Your task to perform on an android device: search for accent chairs on article.com Image 0: 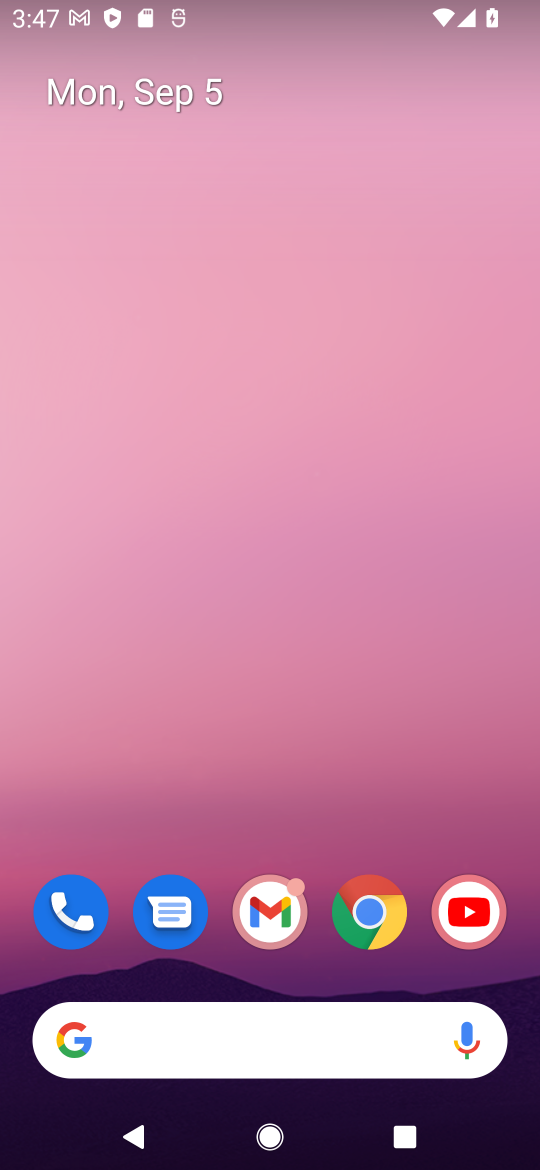
Step 0: click (369, 908)
Your task to perform on an android device: search for accent chairs on article.com Image 1: 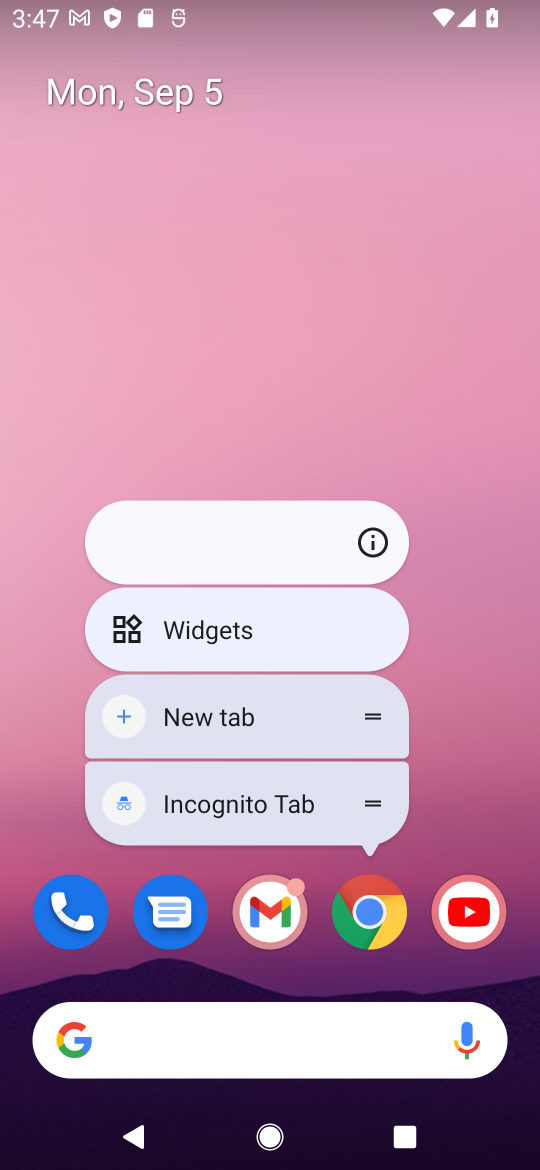
Step 1: click (383, 930)
Your task to perform on an android device: search for accent chairs on article.com Image 2: 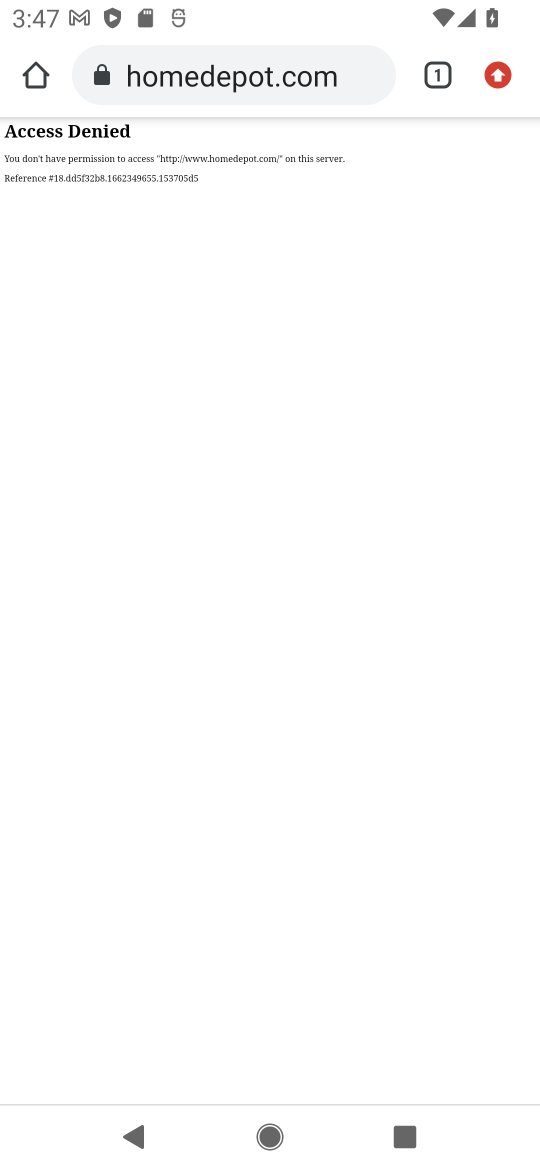
Step 2: click (300, 70)
Your task to perform on an android device: search for accent chairs on article.com Image 3: 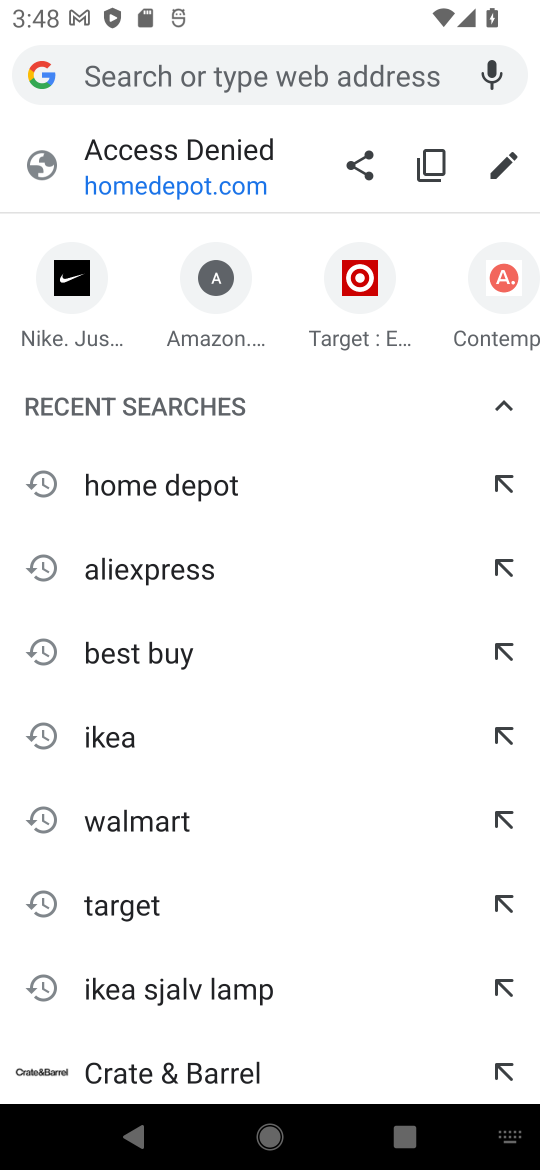
Step 3: type "article.com"
Your task to perform on an android device: search for accent chairs on article.com Image 4: 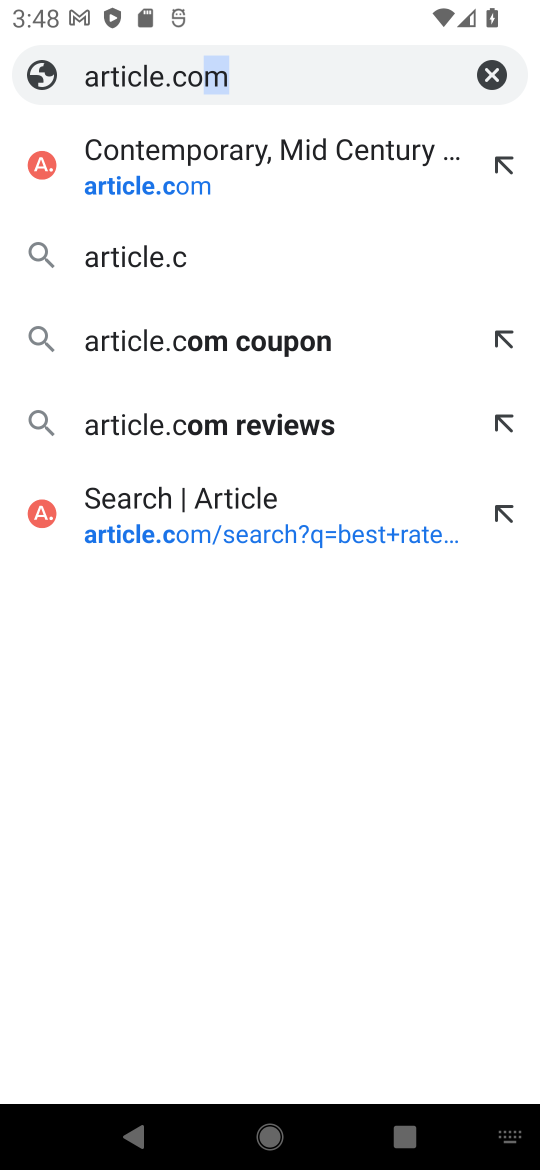
Step 4: type ""
Your task to perform on an android device: search for accent chairs on article.com Image 5: 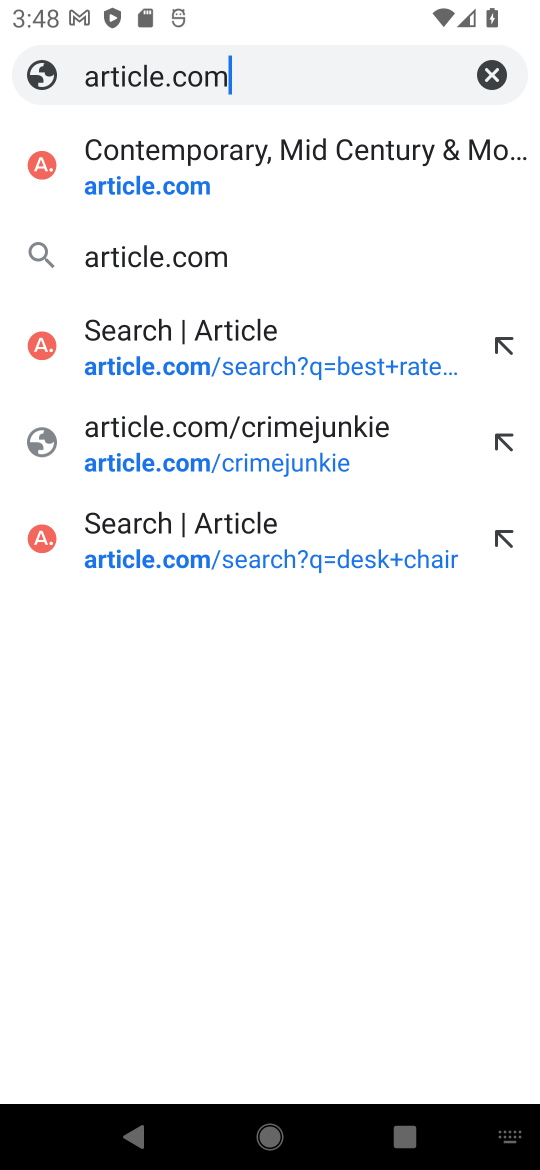
Step 5: press enter
Your task to perform on an android device: search for accent chairs on article.com Image 6: 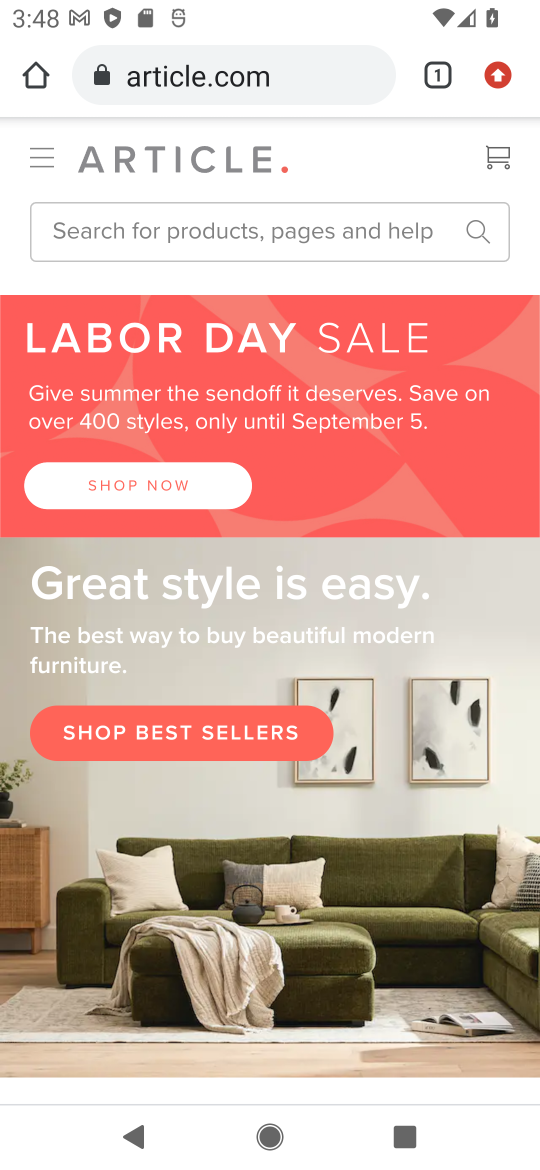
Step 6: click (243, 238)
Your task to perform on an android device: search for accent chairs on article.com Image 7: 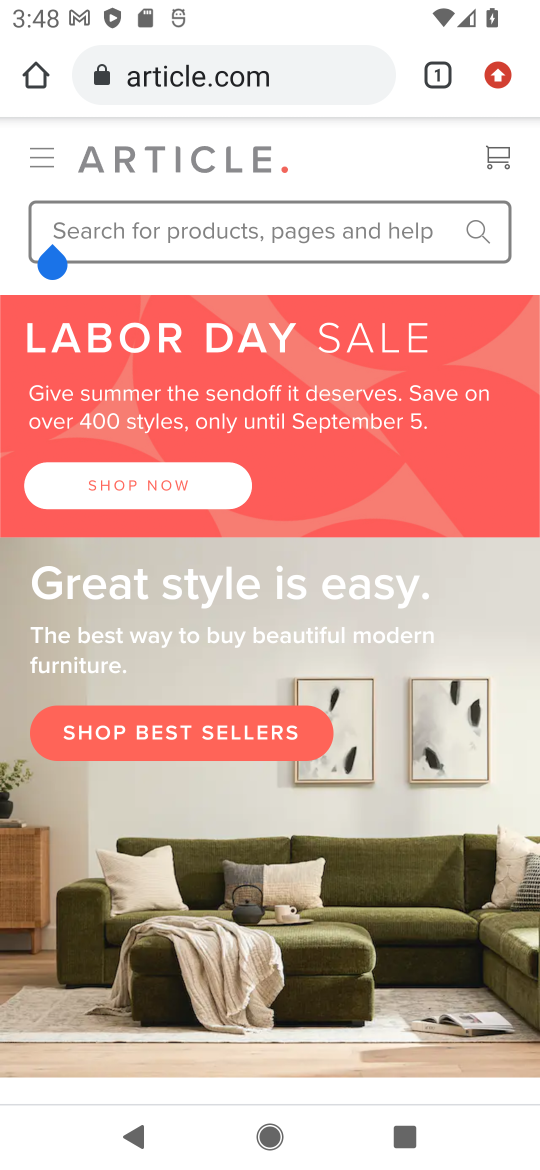
Step 7: type "accent chairs"
Your task to perform on an android device: search for accent chairs on article.com Image 8: 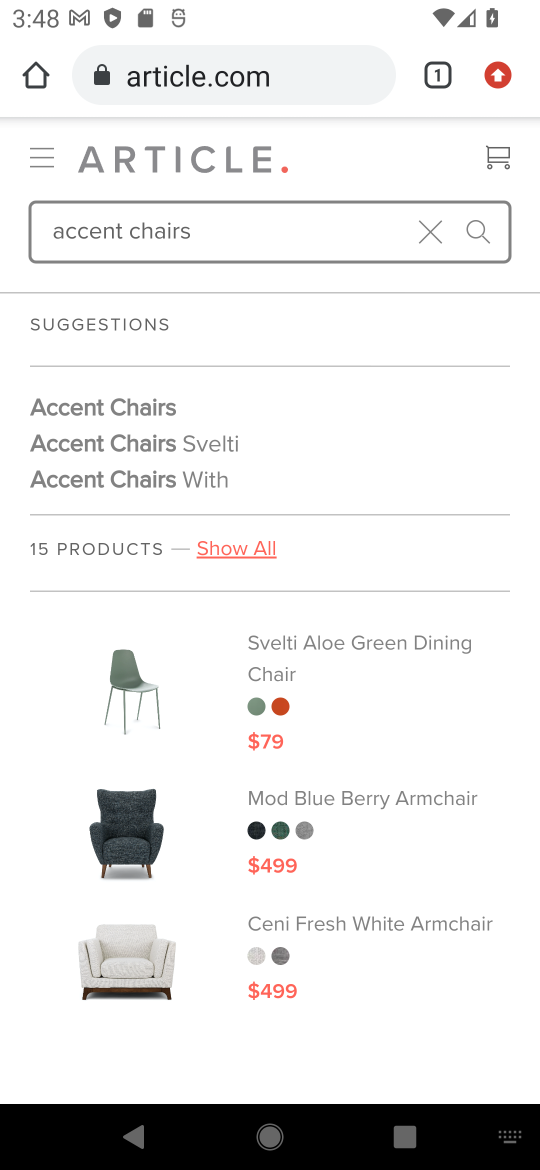
Step 8: press enter
Your task to perform on an android device: search for accent chairs on article.com Image 9: 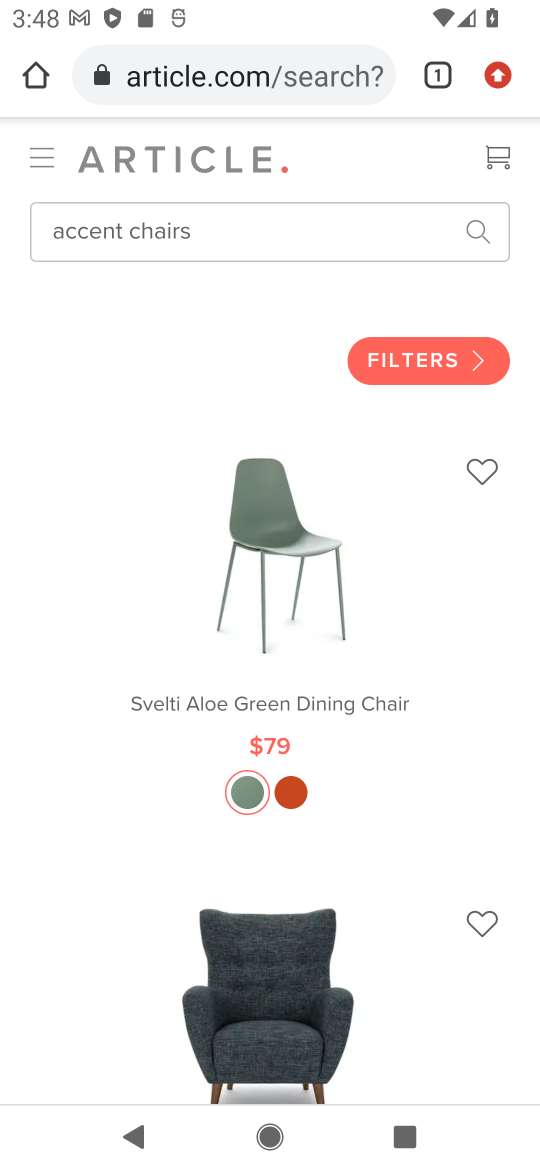
Step 9: task complete